Your task to perform on an android device: Go to location settings Image 0: 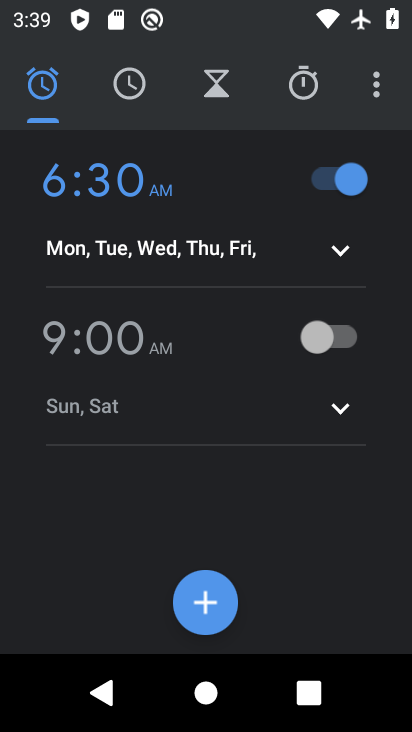
Step 0: press home button
Your task to perform on an android device: Go to location settings Image 1: 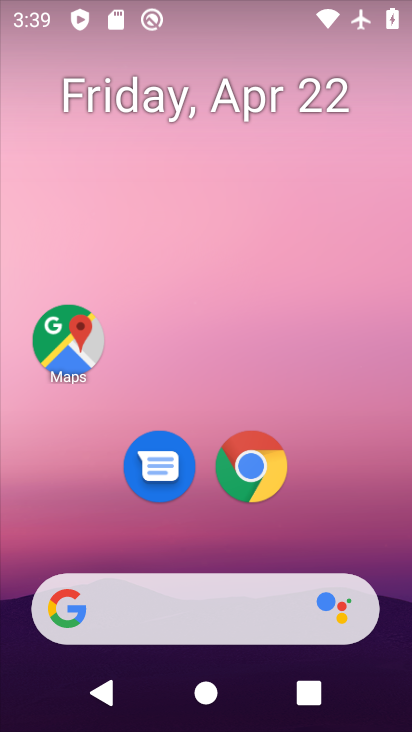
Step 1: drag from (394, 583) to (344, 91)
Your task to perform on an android device: Go to location settings Image 2: 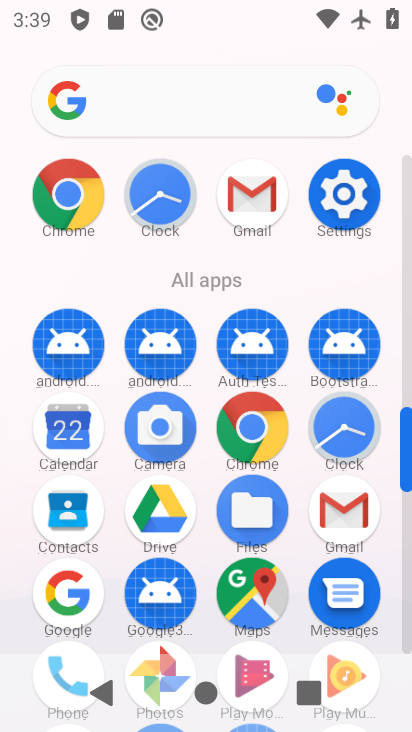
Step 2: click (404, 629)
Your task to perform on an android device: Go to location settings Image 3: 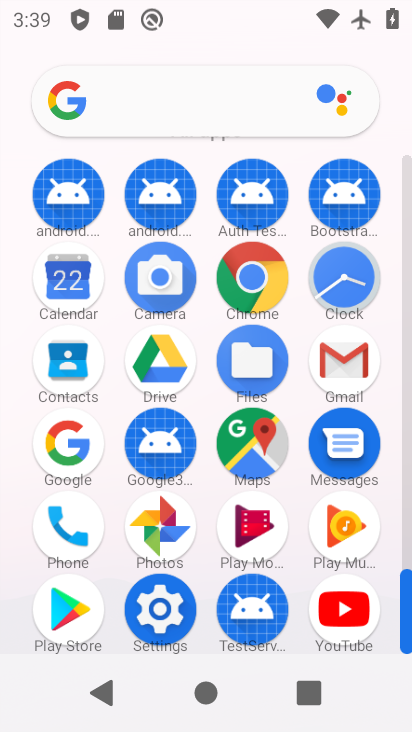
Step 3: click (159, 610)
Your task to perform on an android device: Go to location settings Image 4: 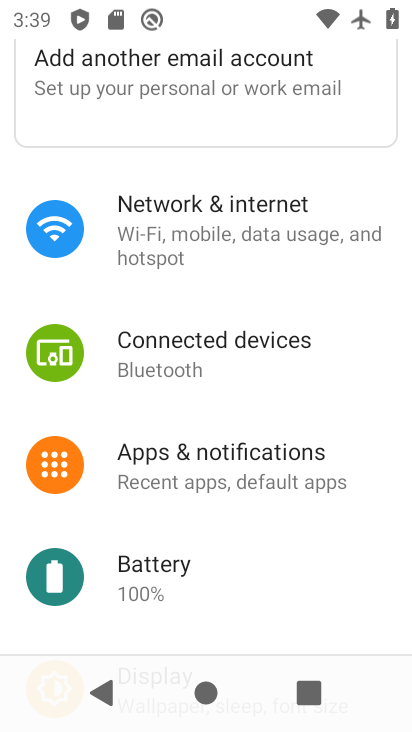
Step 4: drag from (352, 581) to (370, 191)
Your task to perform on an android device: Go to location settings Image 5: 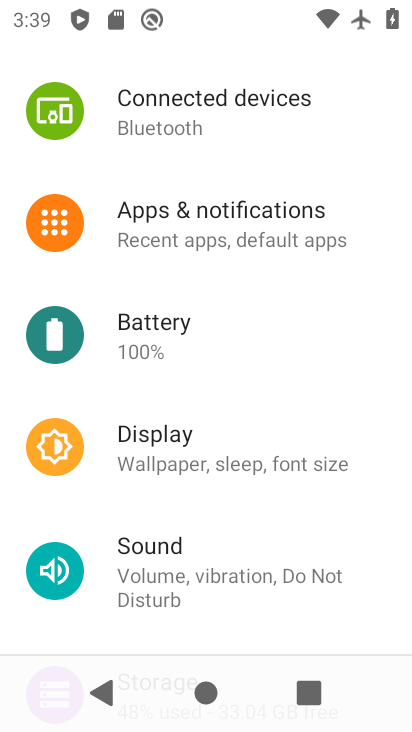
Step 5: drag from (355, 588) to (351, 62)
Your task to perform on an android device: Go to location settings Image 6: 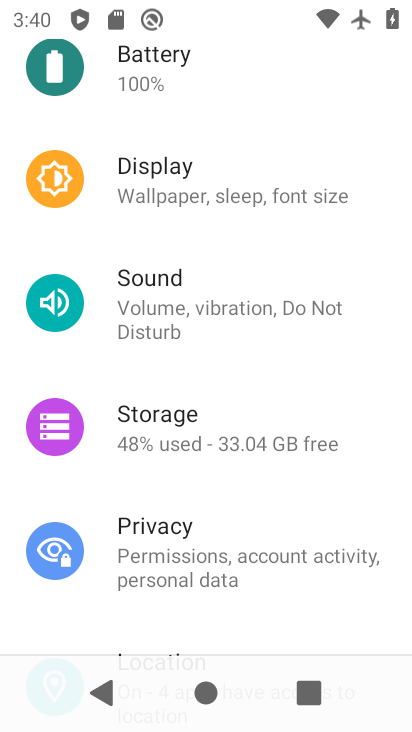
Step 6: drag from (379, 527) to (367, 129)
Your task to perform on an android device: Go to location settings Image 7: 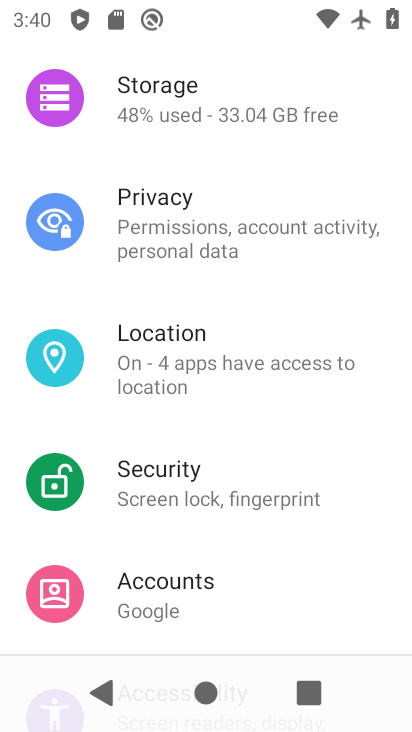
Step 7: click (141, 359)
Your task to perform on an android device: Go to location settings Image 8: 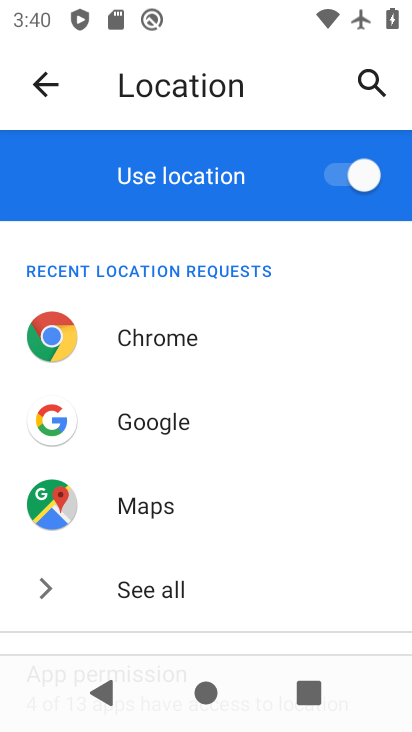
Step 8: drag from (164, 505) to (239, 141)
Your task to perform on an android device: Go to location settings Image 9: 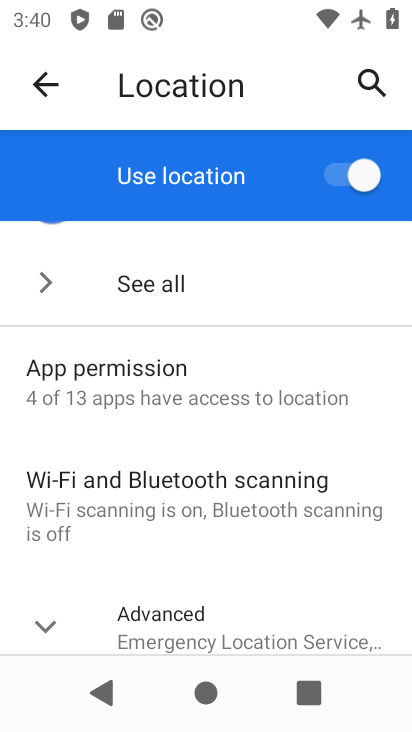
Step 9: click (46, 627)
Your task to perform on an android device: Go to location settings Image 10: 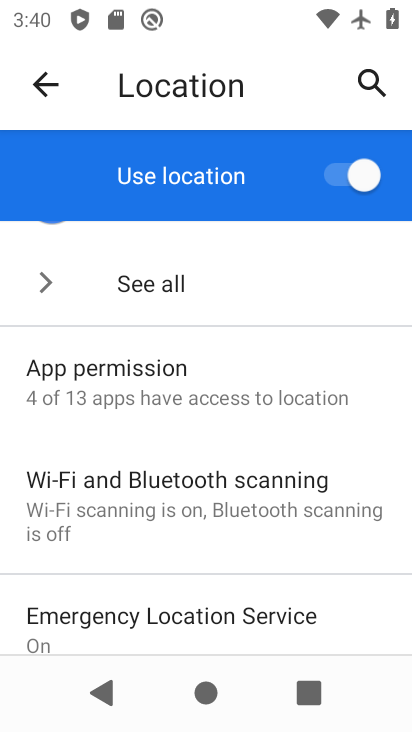
Step 10: task complete